Your task to perform on an android device: What's on my calendar tomorrow? Image 0: 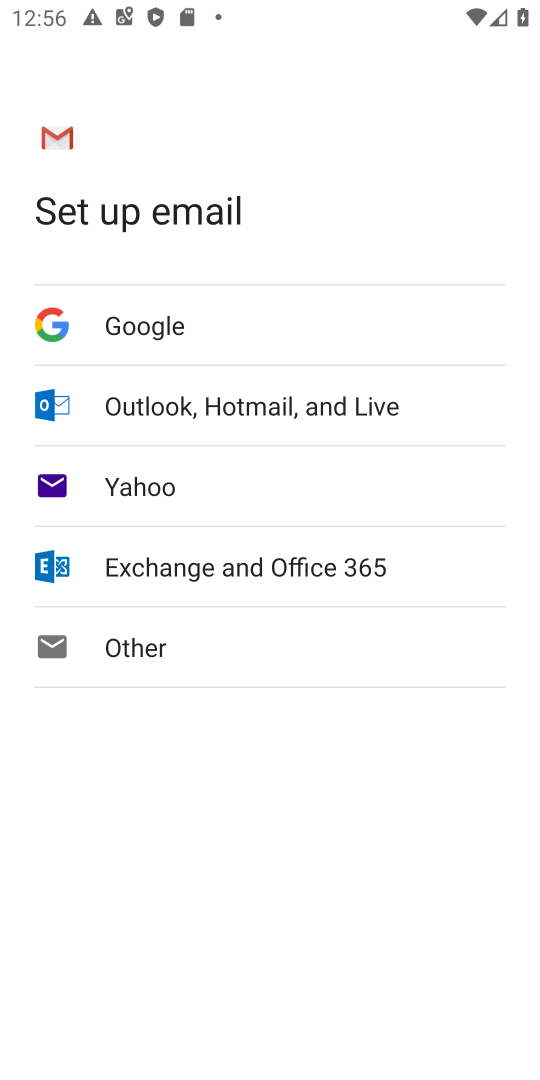
Step 0: press home button
Your task to perform on an android device: What's on my calendar tomorrow? Image 1: 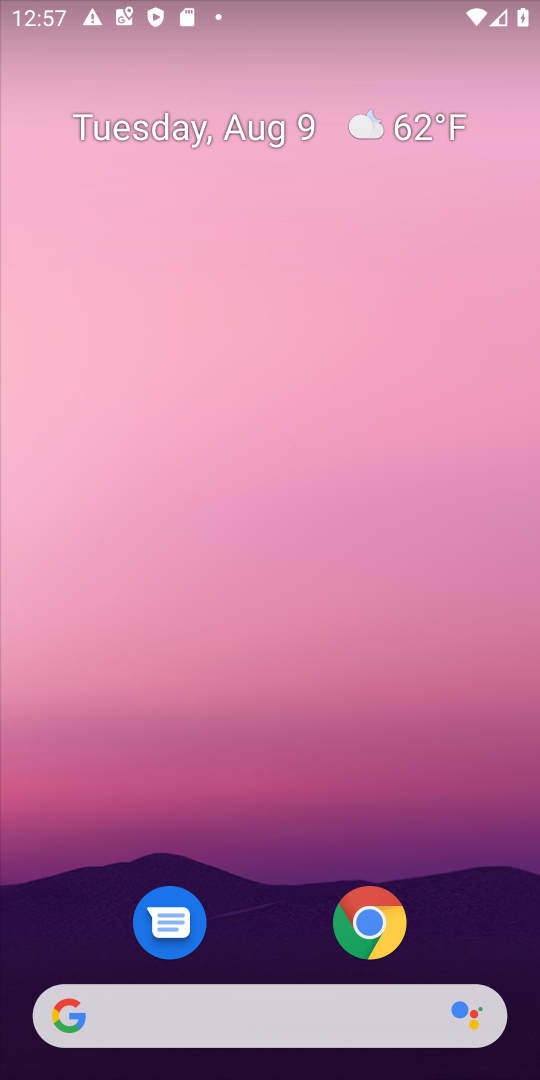
Step 1: drag from (298, 959) to (263, 26)
Your task to perform on an android device: What's on my calendar tomorrow? Image 2: 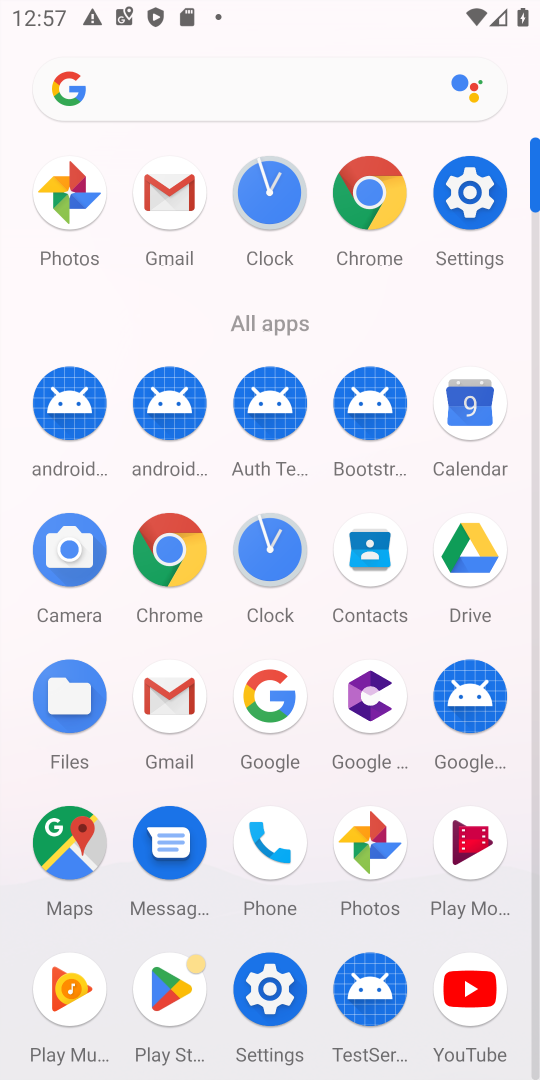
Step 2: click (489, 440)
Your task to perform on an android device: What's on my calendar tomorrow? Image 3: 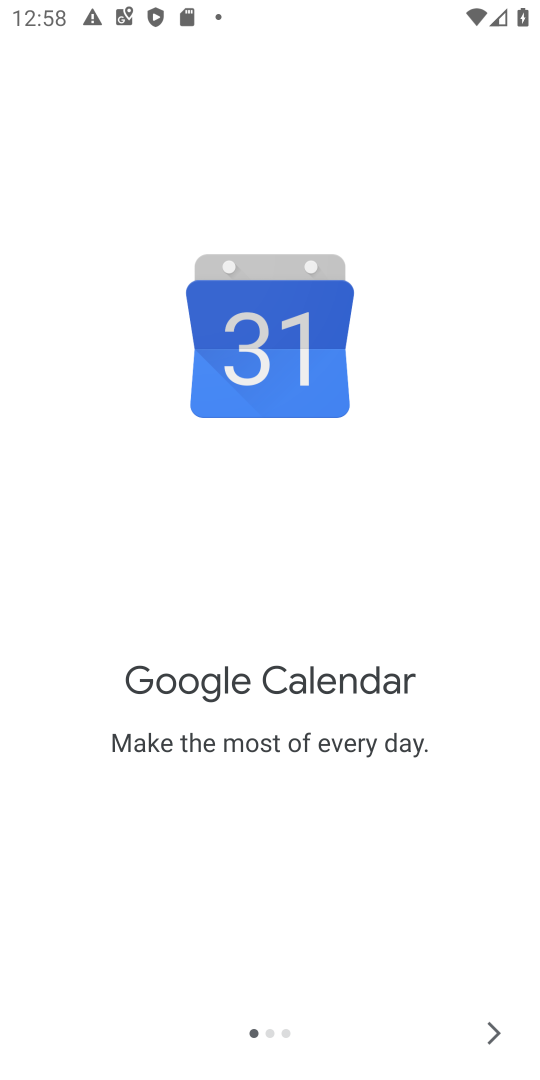
Step 3: click (494, 1040)
Your task to perform on an android device: What's on my calendar tomorrow? Image 4: 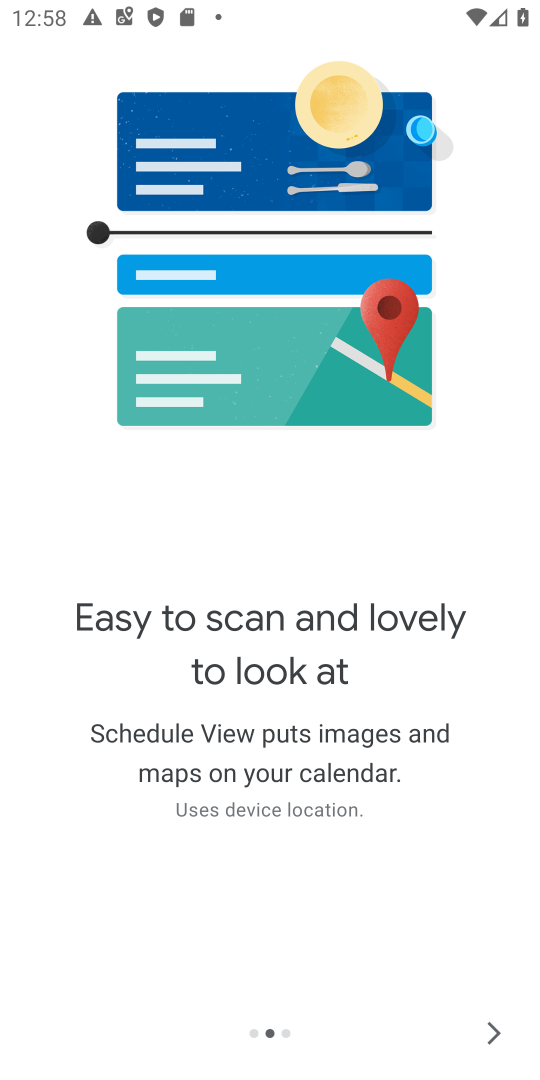
Step 4: click (494, 1040)
Your task to perform on an android device: What's on my calendar tomorrow? Image 5: 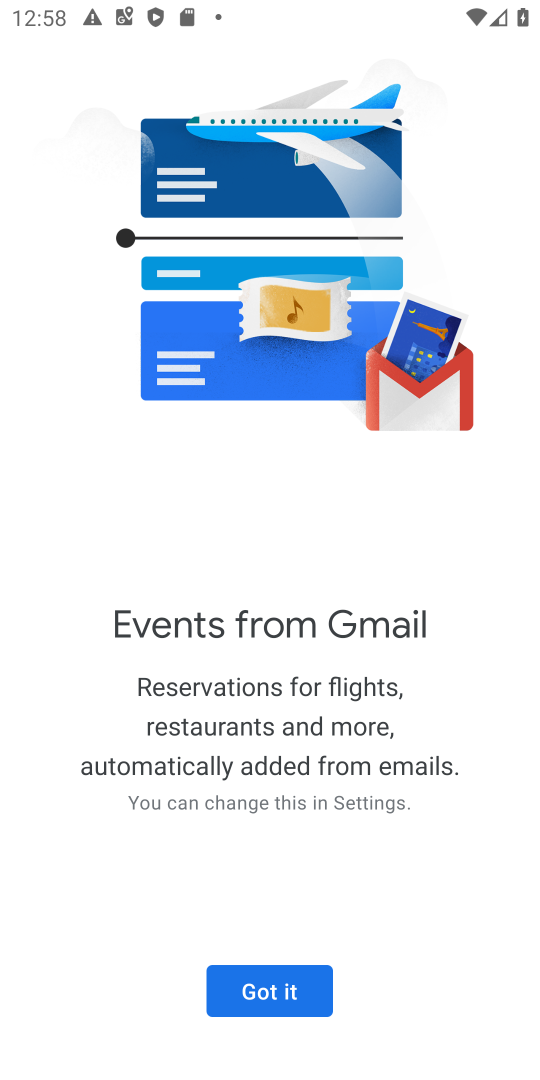
Step 5: click (300, 987)
Your task to perform on an android device: What's on my calendar tomorrow? Image 6: 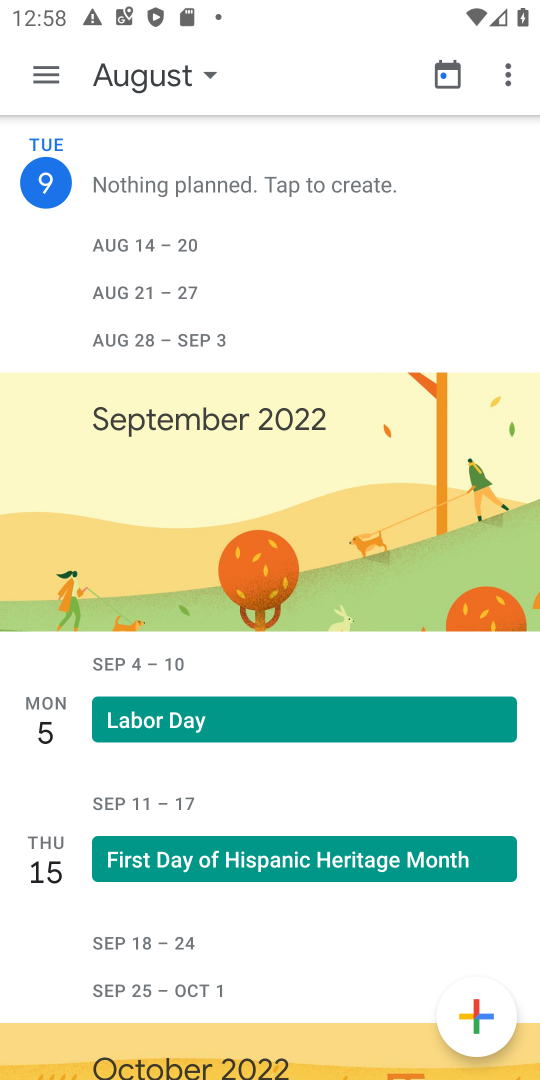
Step 6: click (33, 60)
Your task to perform on an android device: What's on my calendar tomorrow? Image 7: 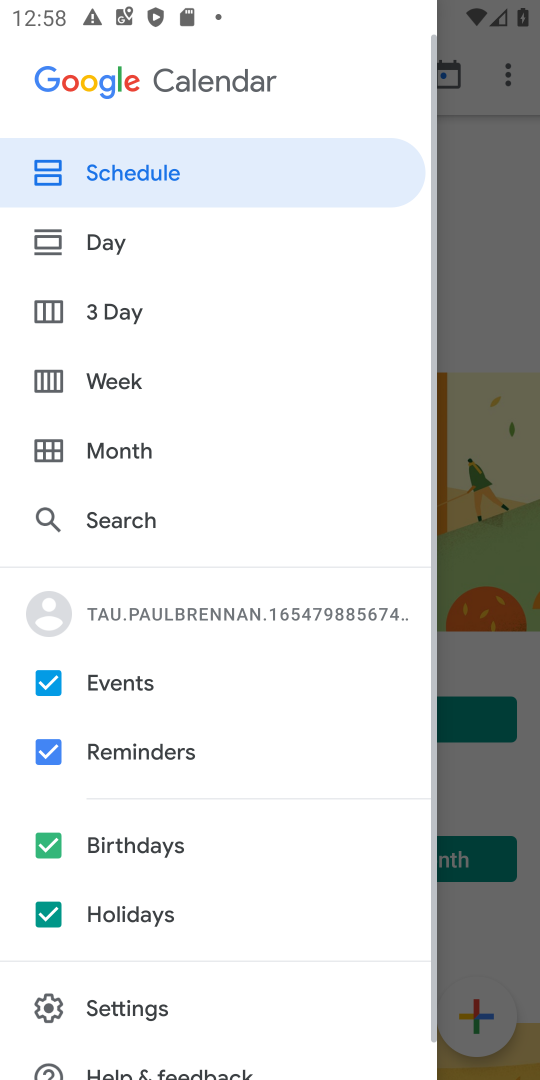
Step 7: click (89, 367)
Your task to perform on an android device: What's on my calendar tomorrow? Image 8: 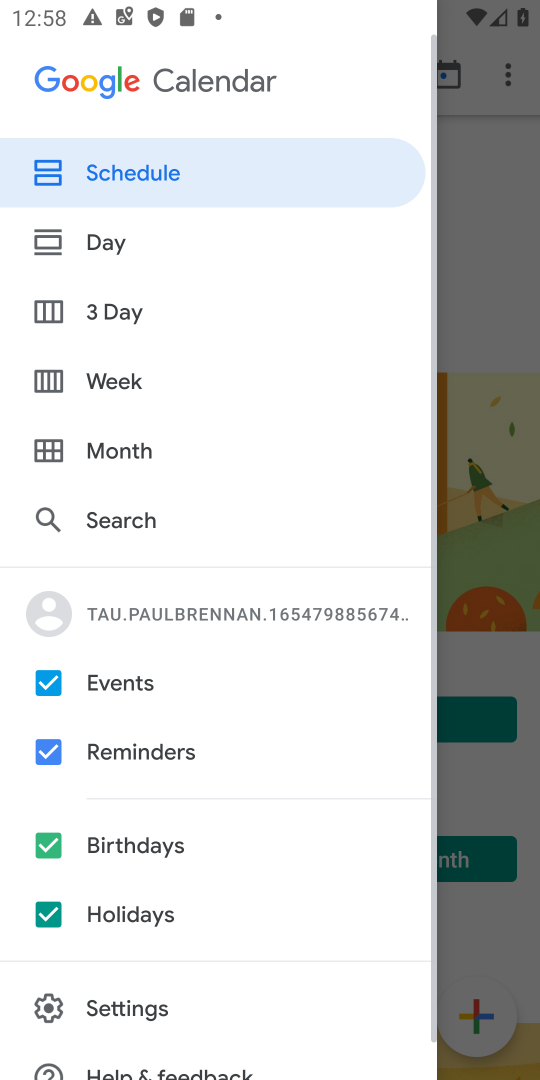
Step 8: click (89, 367)
Your task to perform on an android device: What's on my calendar tomorrow? Image 9: 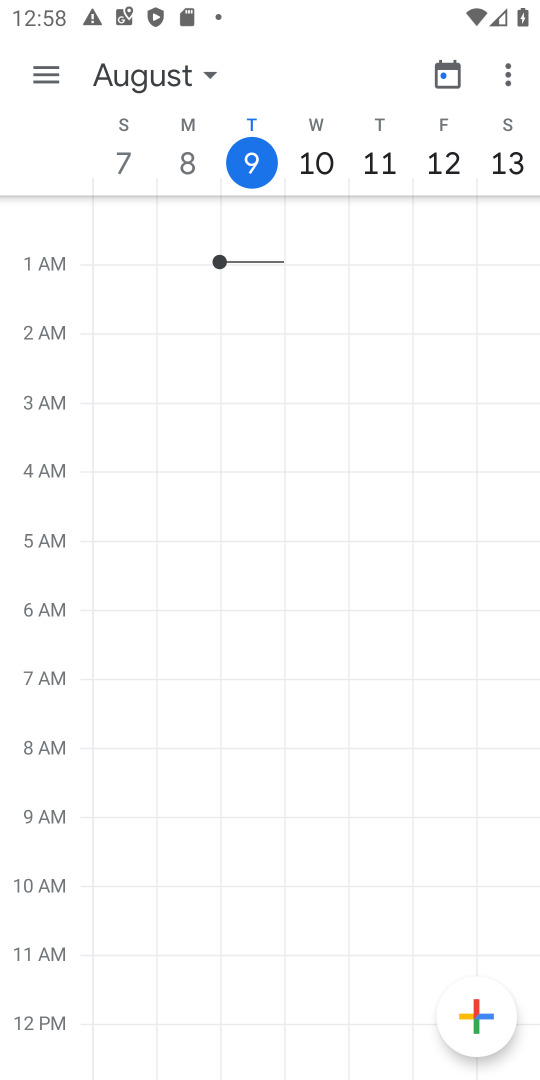
Step 9: click (322, 167)
Your task to perform on an android device: What's on my calendar tomorrow? Image 10: 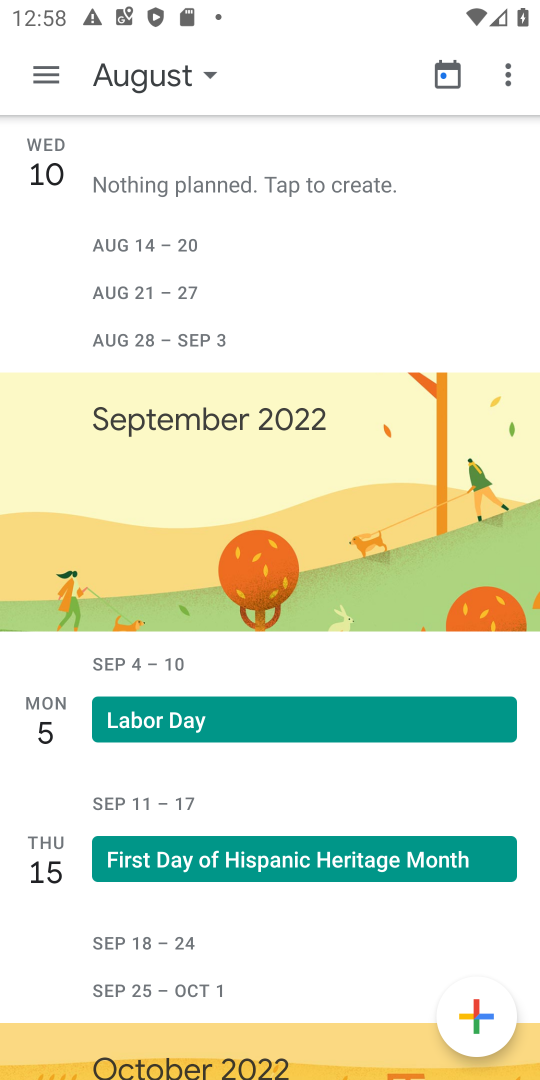
Step 10: task complete